Your task to perform on an android device: Search for seafood restaurants on Google Maps Image 0: 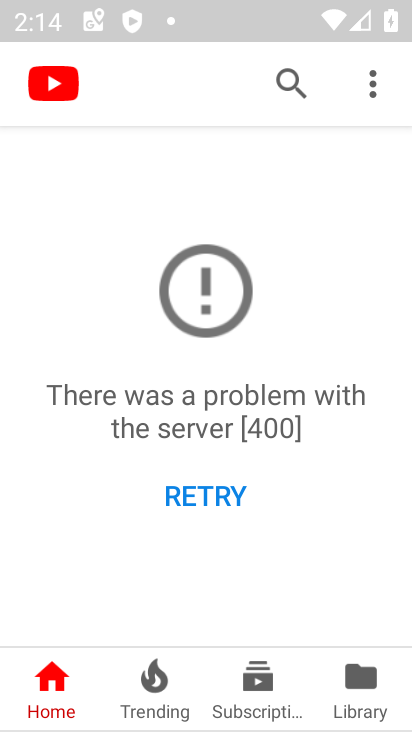
Step 0: press home button
Your task to perform on an android device: Search for seafood restaurants on Google Maps Image 1: 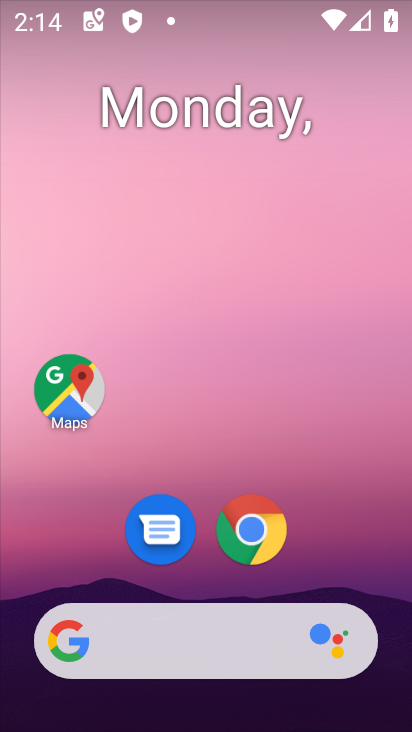
Step 1: click (76, 391)
Your task to perform on an android device: Search for seafood restaurants on Google Maps Image 2: 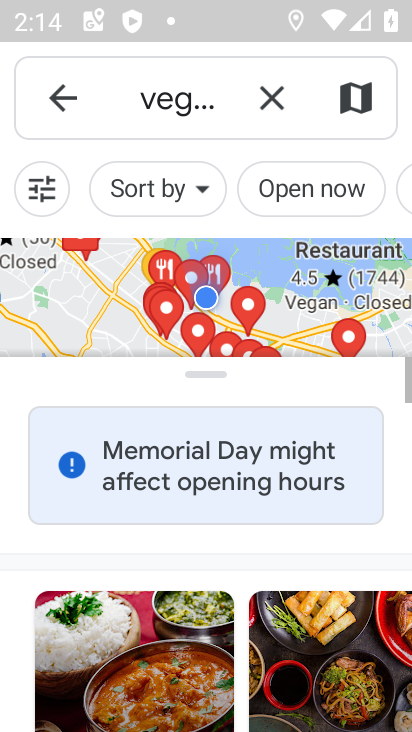
Step 2: click (76, 391)
Your task to perform on an android device: Search for seafood restaurants on Google Maps Image 3: 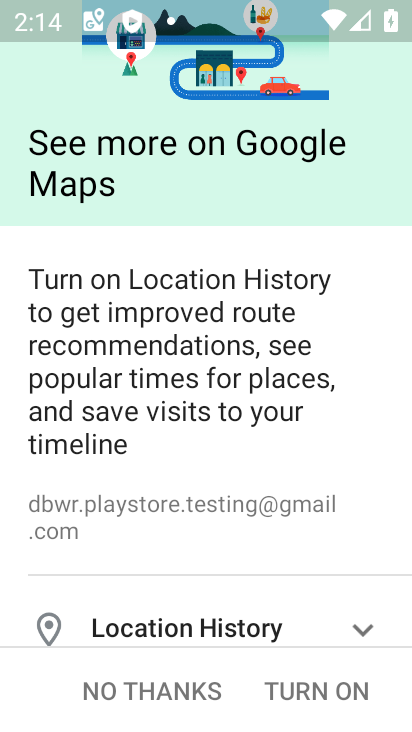
Step 3: click (188, 686)
Your task to perform on an android device: Search for seafood restaurants on Google Maps Image 4: 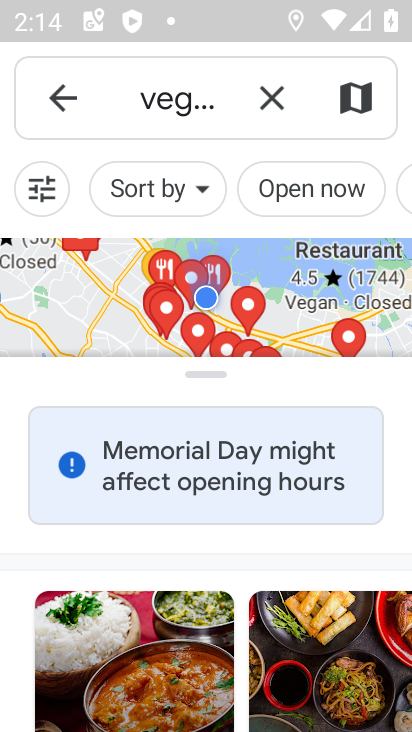
Step 4: click (265, 85)
Your task to perform on an android device: Search for seafood restaurants on Google Maps Image 5: 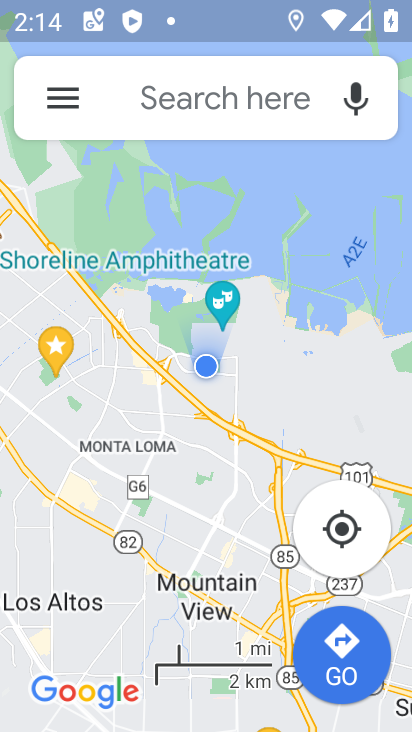
Step 5: click (216, 107)
Your task to perform on an android device: Search for seafood restaurants on Google Maps Image 6: 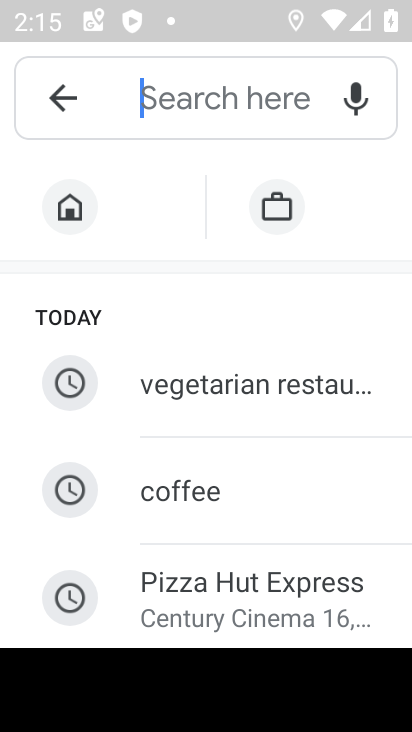
Step 6: type "seafood restaurants"
Your task to perform on an android device: Search for seafood restaurants on Google Maps Image 7: 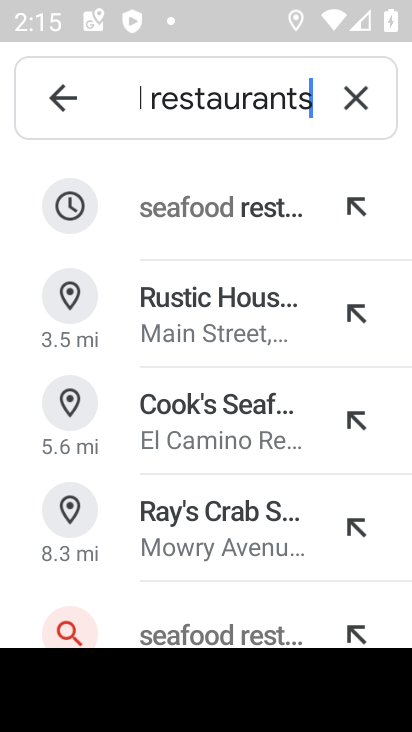
Step 7: click (223, 201)
Your task to perform on an android device: Search for seafood restaurants on Google Maps Image 8: 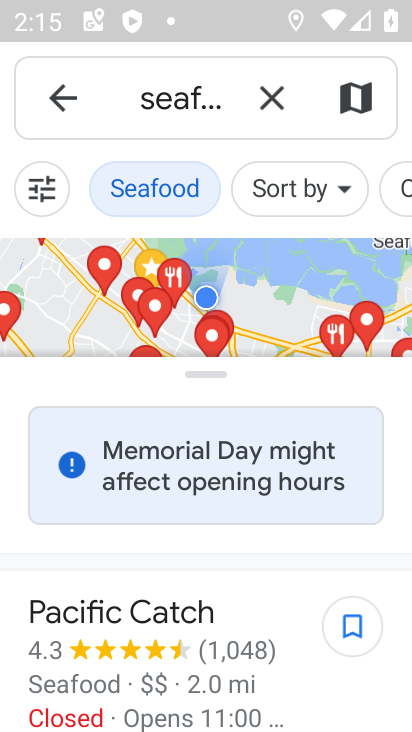
Step 8: task complete